Your task to perform on an android device: Open network settings Image 0: 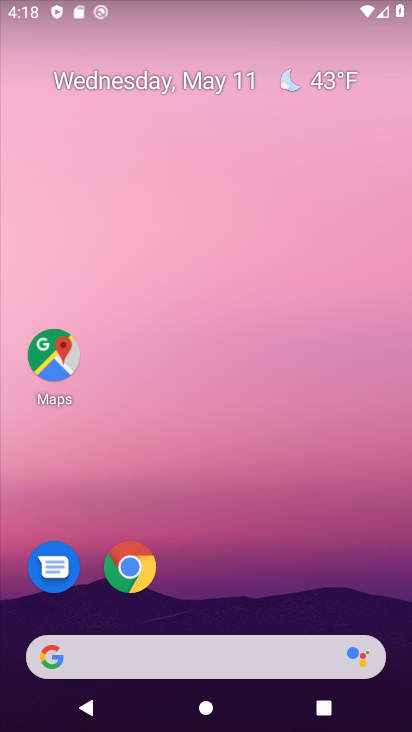
Step 0: drag from (263, 613) to (148, 80)
Your task to perform on an android device: Open network settings Image 1: 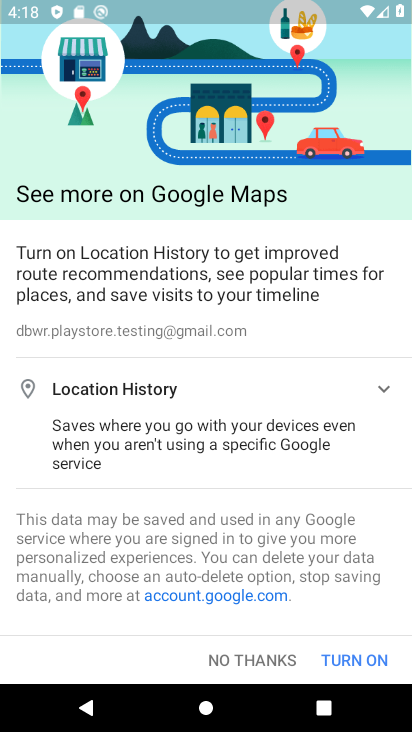
Step 1: press home button
Your task to perform on an android device: Open network settings Image 2: 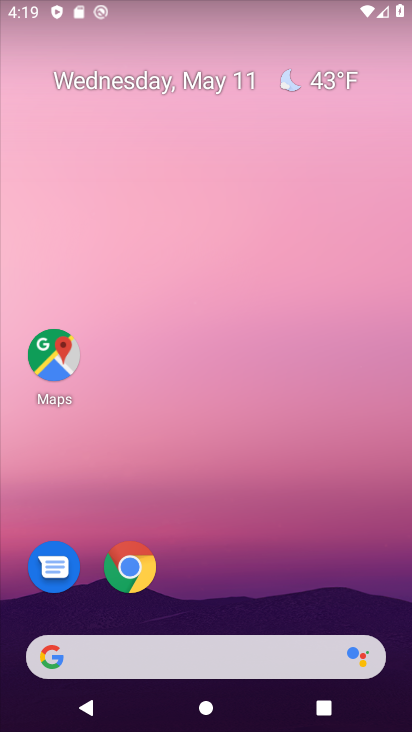
Step 2: drag from (250, 564) to (216, 152)
Your task to perform on an android device: Open network settings Image 3: 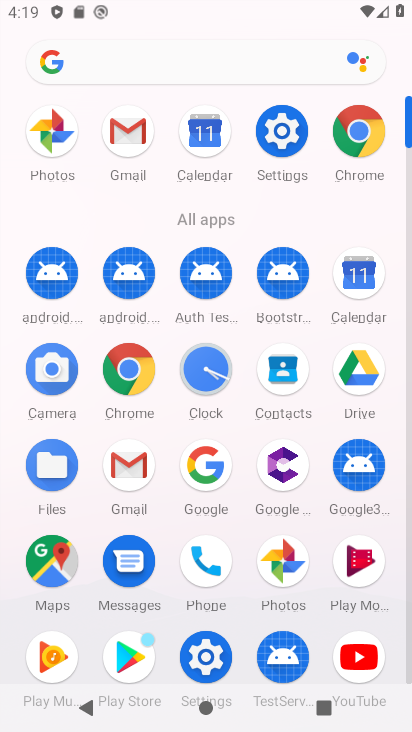
Step 3: click (263, 110)
Your task to perform on an android device: Open network settings Image 4: 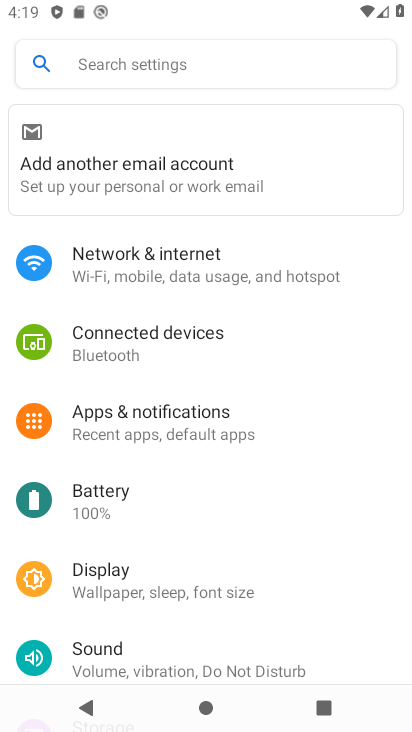
Step 4: click (238, 251)
Your task to perform on an android device: Open network settings Image 5: 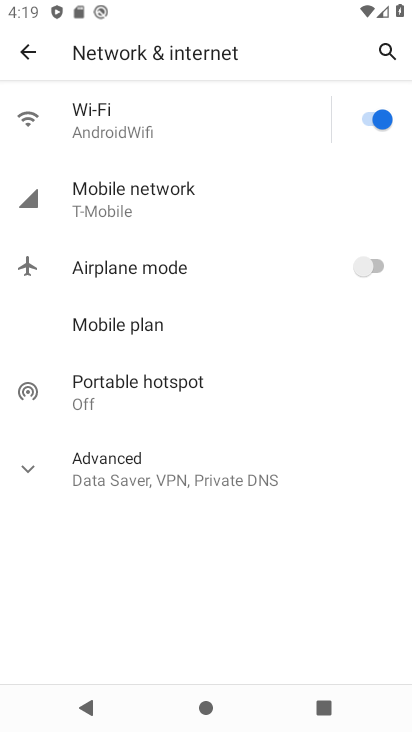
Step 5: click (213, 212)
Your task to perform on an android device: Open network settings Image 6: 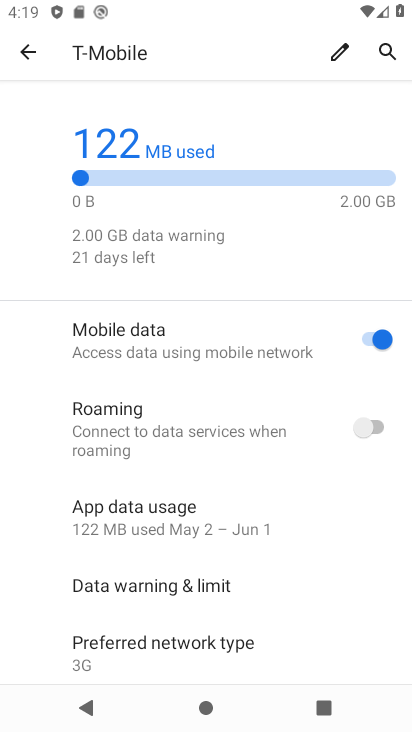
Step 6: task complete